Your task to perform on an android device: Open Chrome and go to settings Image 0: 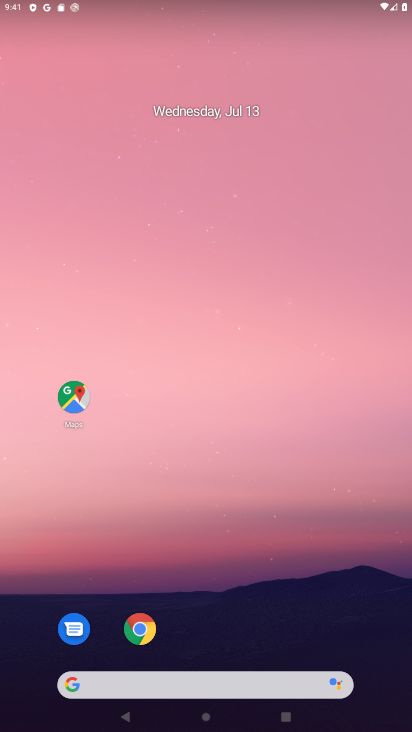
Step 0: click (159, 618)
Your task to perform on an android device: Open Chrome and go to settings Image 1: 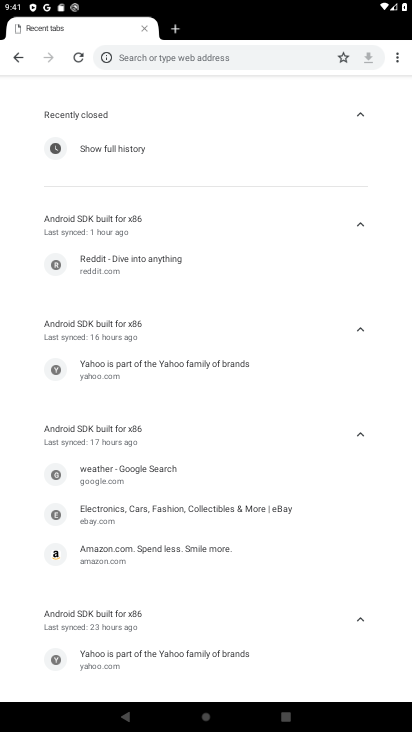
Step 1: click (391, 53)
Your task to perform on an android device: Open Chrome and go to settings Image 2: 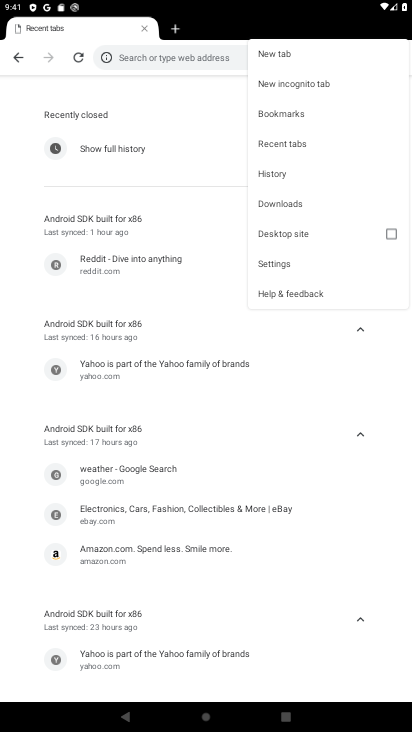
Step 2: click (266, 275)
Your task to perform on an android device: Open Chrome and go to settings Image 3: 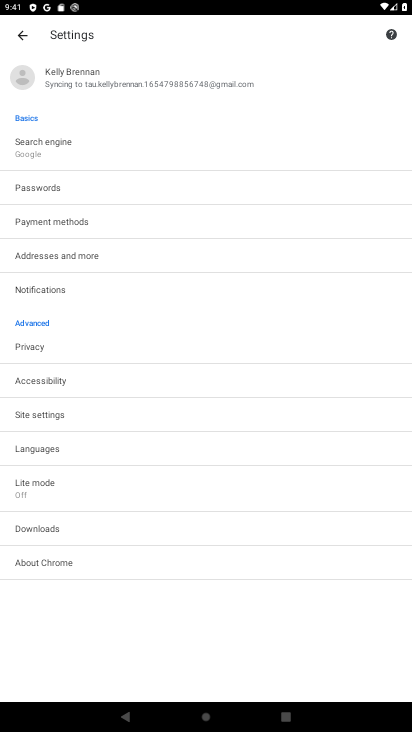
Step 3: task complete